Your task to perform on an android device: Open Maps and search for coffee Image 0: 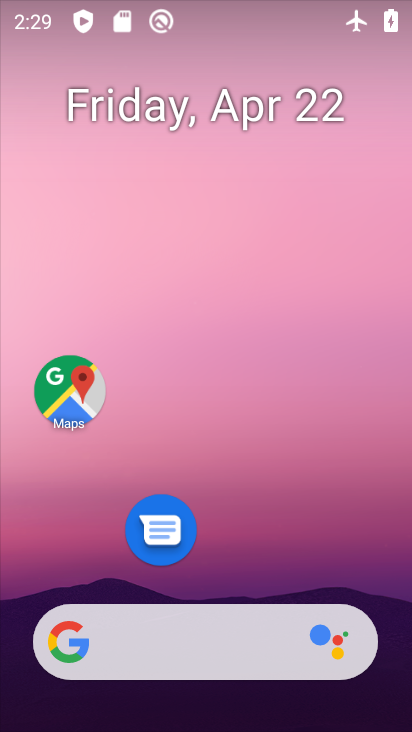
Step 0: drag from (227, 314) to (191, 23)
Your task to perform on an android device: Open Maps and search for coffee Image 1: 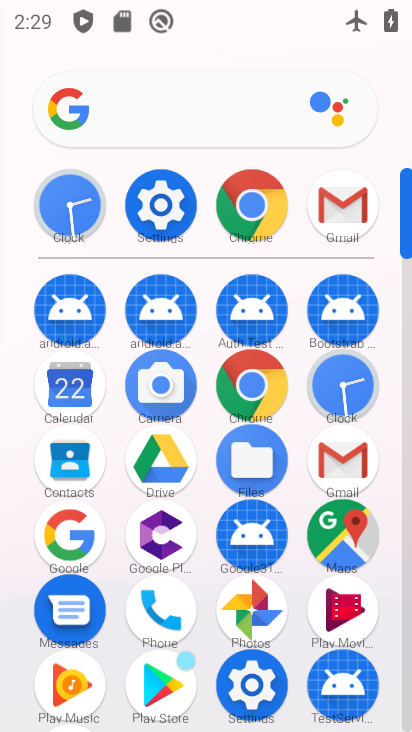
Step 1: click (338, 544)
Your task to perform on an android device: Open Maps and search for coffee Image 2: 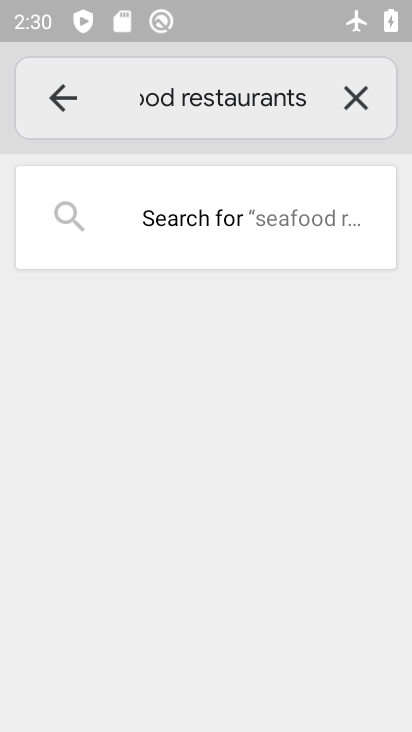
Step 2: click (360, 94)
Your task to perform on an android device: Open Maps and search for coffee Image 3: 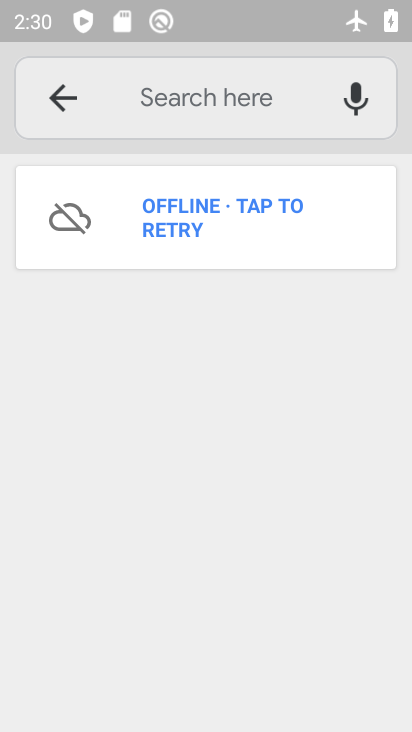
Step 3: task complete